Your task to perform on an android device: Show me popular videos on Youtube Image 0: 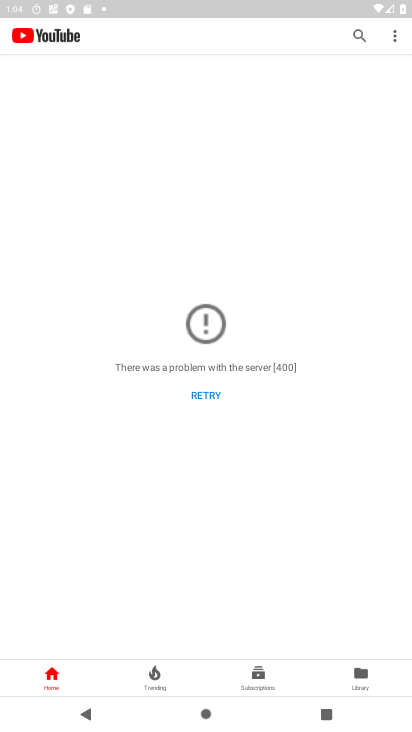
Step 0: task impossible